Your task to perform on an android device: change the clock display to analog Image 0: 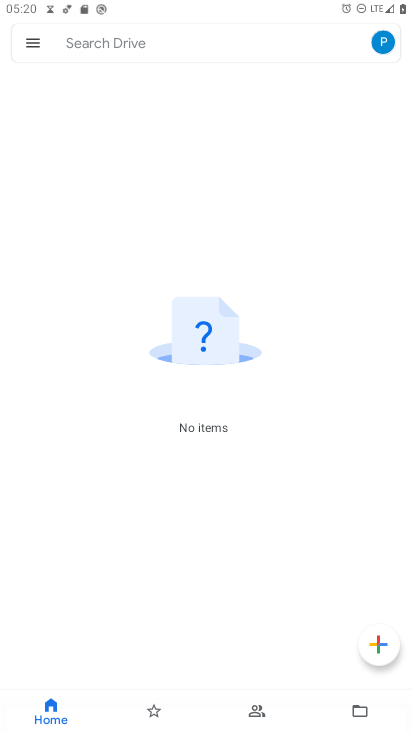
Step 0: press home button
Your task to perform on an android device: change the clock display to analog Image 1: 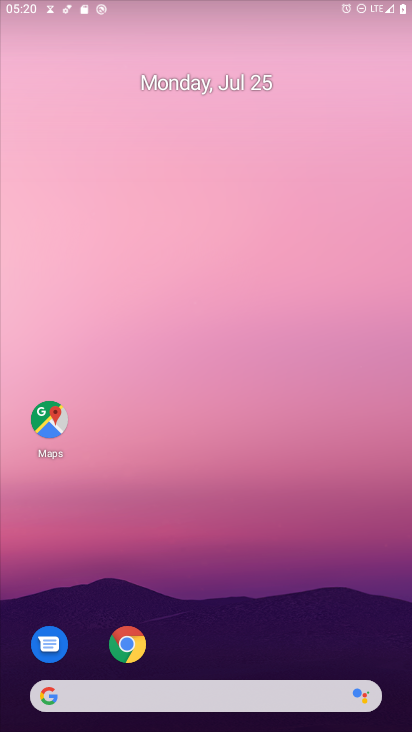
Step 1: drag from (313, 590) to (279, 48)
Your task to perform on an android device: change the clock display to analog Image 2: 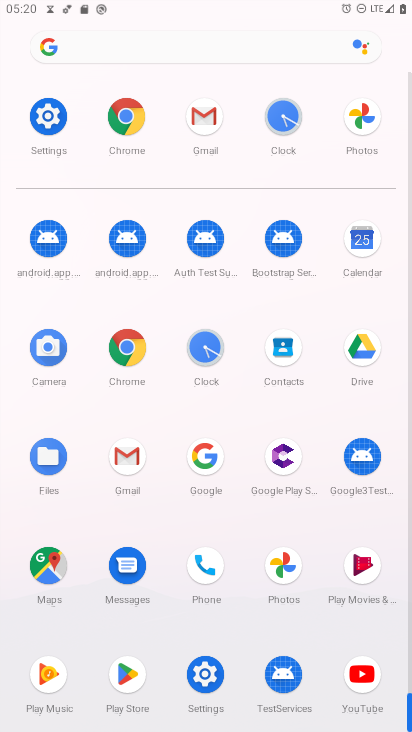
Step 2: click (290, 109)
Your task to perform on an android device: change the clock display to analog Image 3: 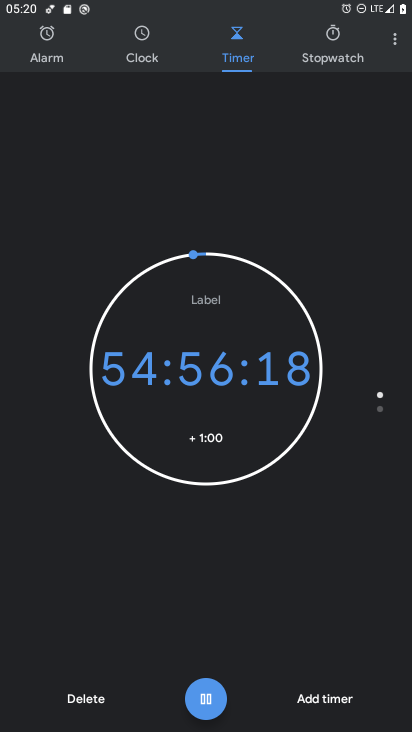
Step 3: click (399, 34)
Your task to perform on an android device: change the clock display to analog Image 4: 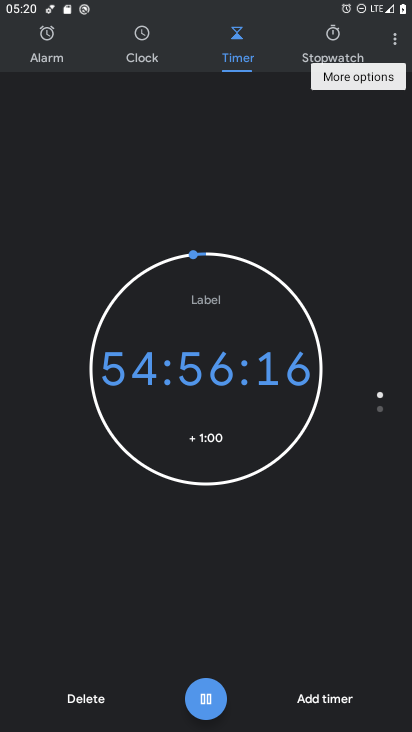
Step 4: click (394, 36)
Your task to perform on an android device: change the clock display to analog Image 5: 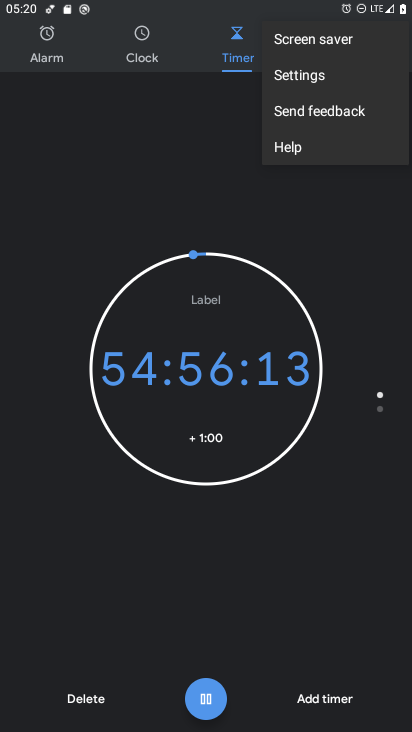
Step 5: click (314, 74)
Your task to perform on an android device: change the clock display to analog Image 6: 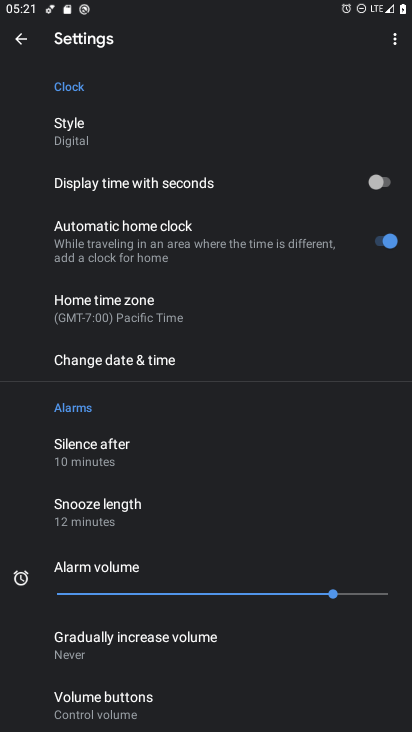
Step 6: click (67, 135)
Your task to perform on an android device: change the clock display to analog Image 7: 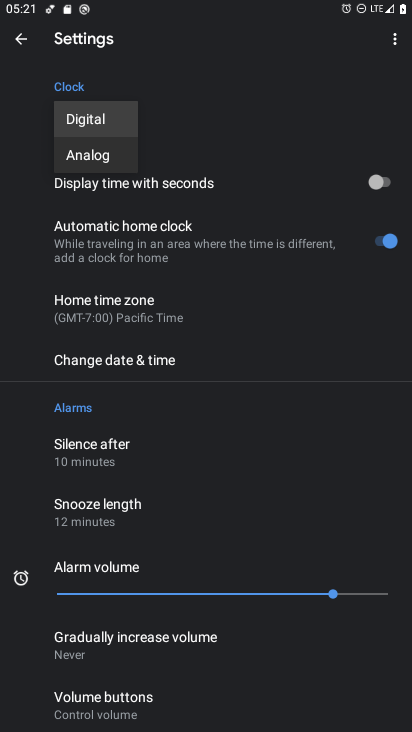
Step 7: click (101, 155)
Your task to perform on an android device: change the clock display to analog Image 8: 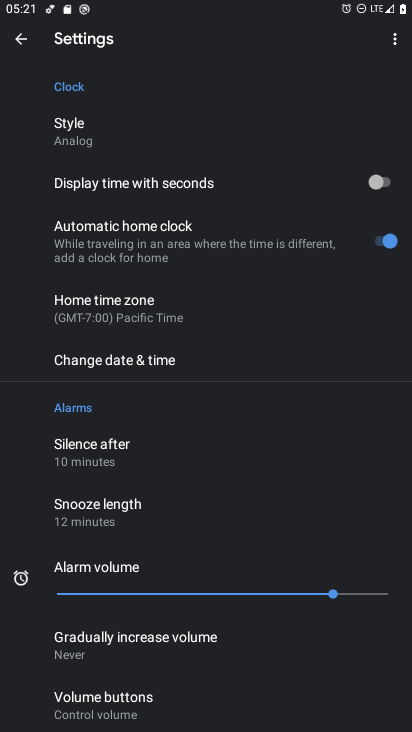
Step 8: task complete